Your task to perform on an android device: turn off airplane mode Image 0: 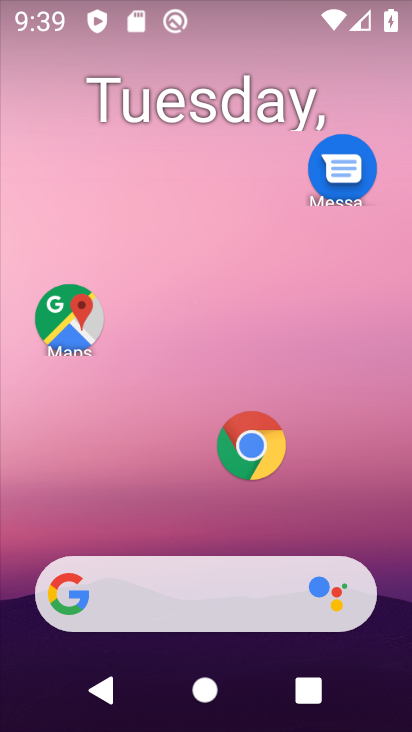
Step 0: drag from (49, 537) to (239, 198)
Your task to perform on an android device: turn off airplane mode Image 1: 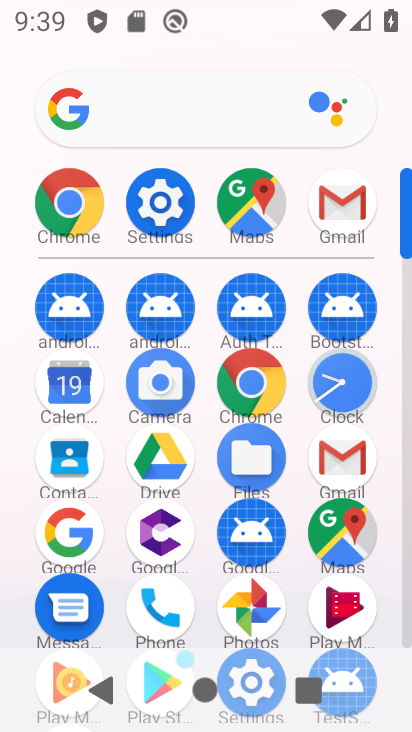
Step 1: drag from (149, 342) to (201, 240)
Your task to perform on an android device: turn off airplane mode Image 2: 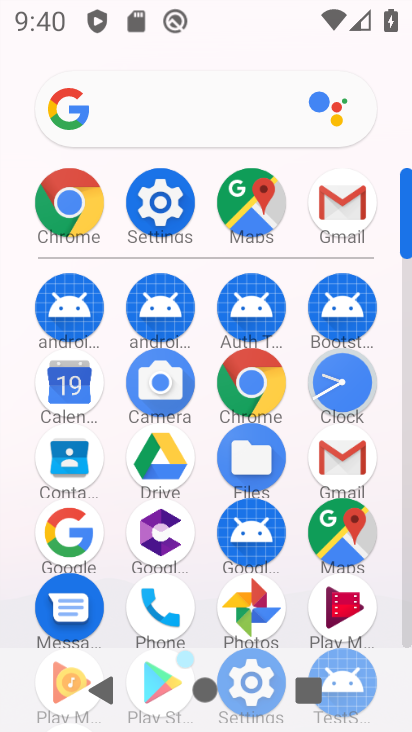
Step 2: drag from (13, 602) to (156, 250)
Your task to perform on an android device: turn off airplane mode Image 3: 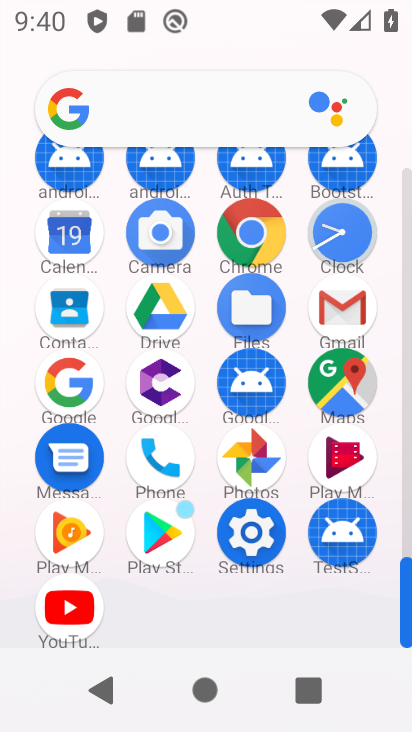
Step 3: click (252, 526)
Your task to perform on an android device: turn off airplane mode Image 4: 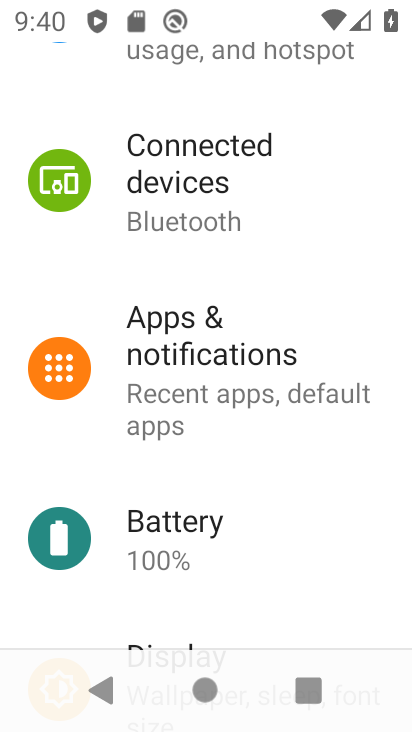
Step 4: task complete